Your task to perform on an android device: empty trash in the gmail app Image 0: 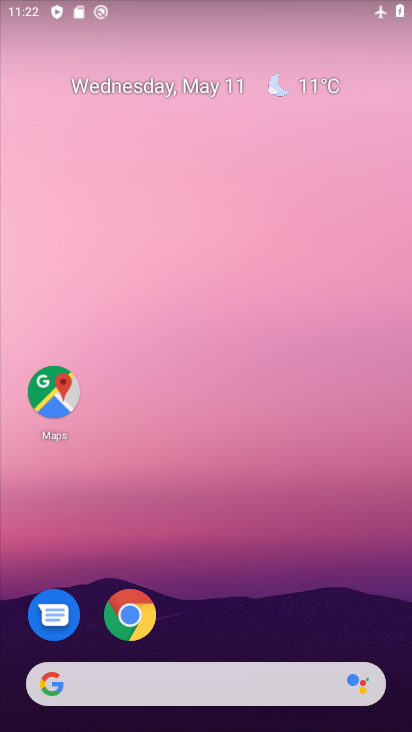
Step 0: drag from (286, 598) to (323, 160)
Your task to perform on an android device: empty trash in the gmail app Image 1: 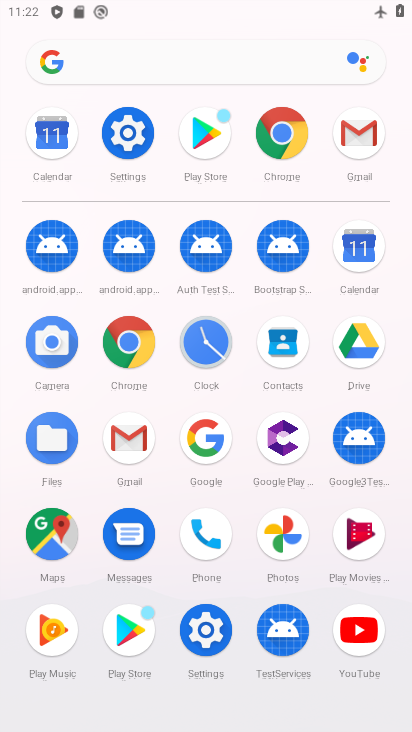
Step 1: click (133, 439)
Your task to perform on an android device: empty trash in the gmail app Image 2: 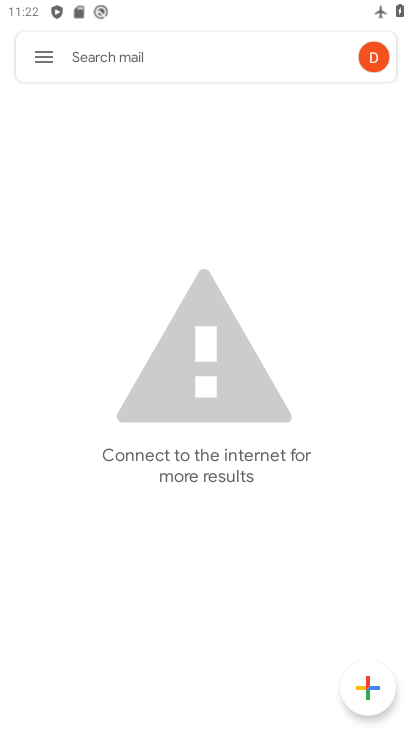
Step 2: click (39, 68)
Your task to perform on an android device: empty trash in the gmail app Image 3: 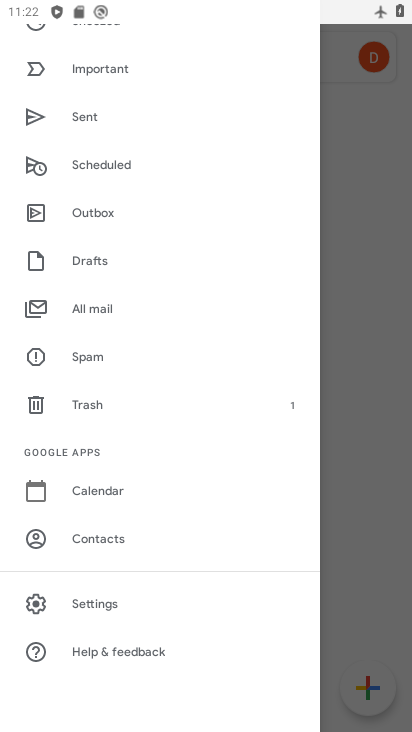
Step 3: click (81, 415)
Your task to perform on an android device: empty trash in the gmail app Image 4: 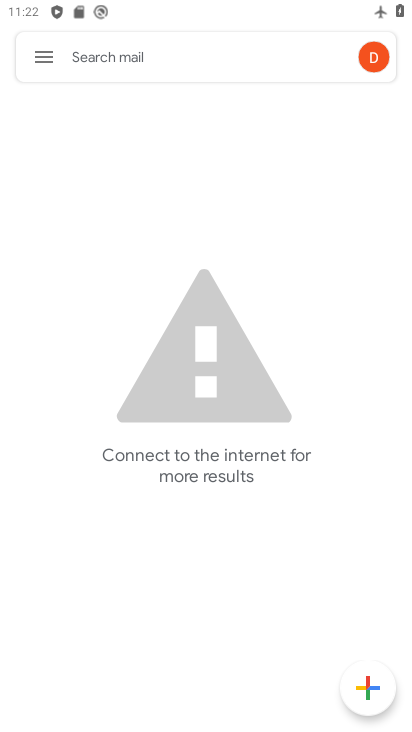
Step 4: task complete